Your task to perform on an android device: toggle translation in the chrome app Image 0: 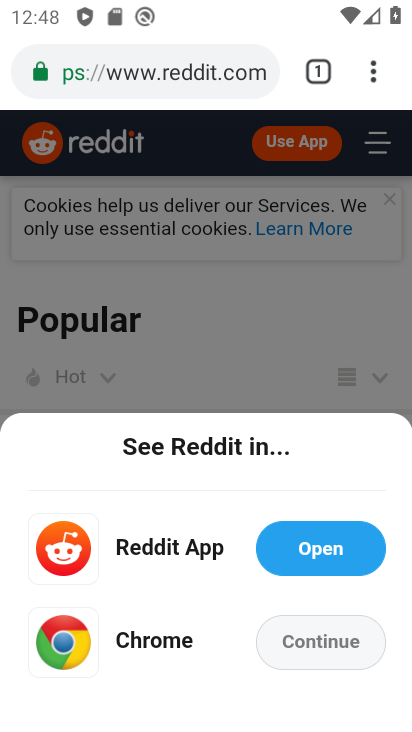
Step 0: press home button
Your task to perform on an android device: toggle translation in the chrome app Image 1: 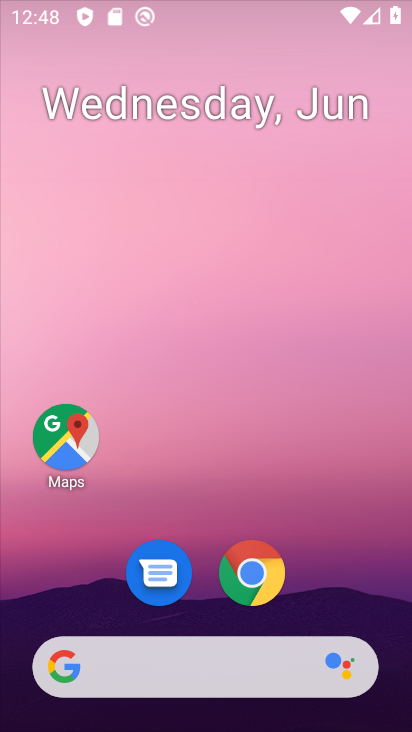
Step 1: drag from (371, 573) to (339, 255)
Your task to perform on an android device: toggle translation in the chrome app Image 2: 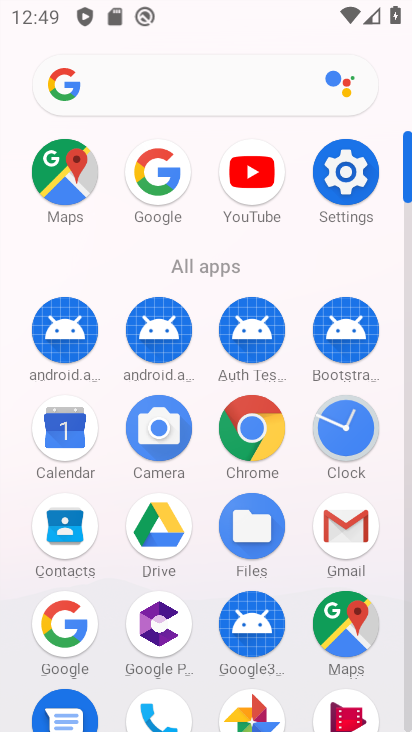
Step 2: click (270, 435)
Your task to perform on an android device: toggle translation in the chrome app Image 3: 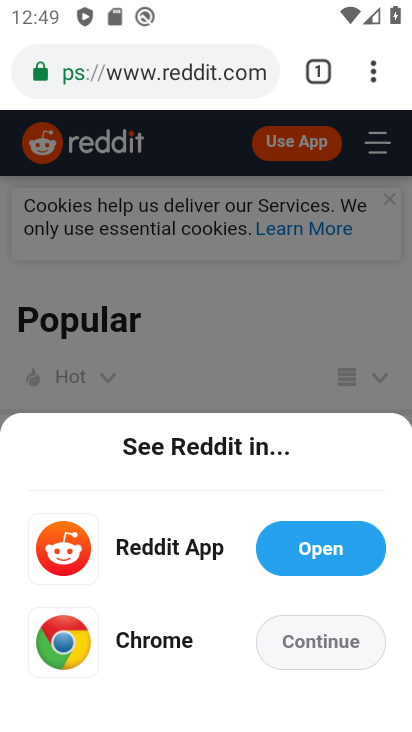
Step 3: drag from (365, 72) to (267, 592)
Your task to perform on an android device: toggle translation in the chrome app Image 4: 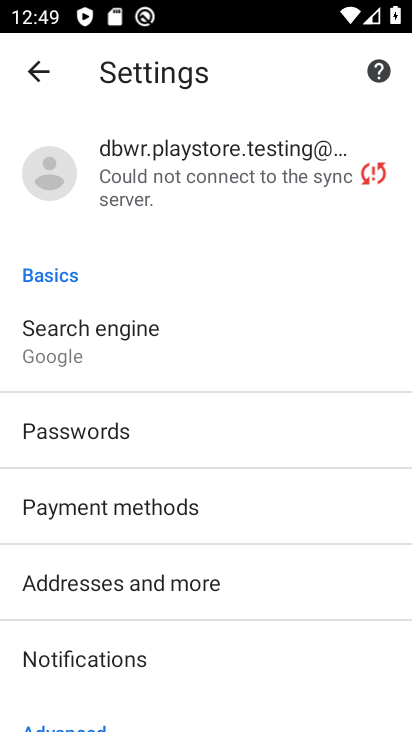
Step 4: drag from (280, 611) to (268, 440)
Your task to perform on an android device: toggle translation in the chrome app Image 5: 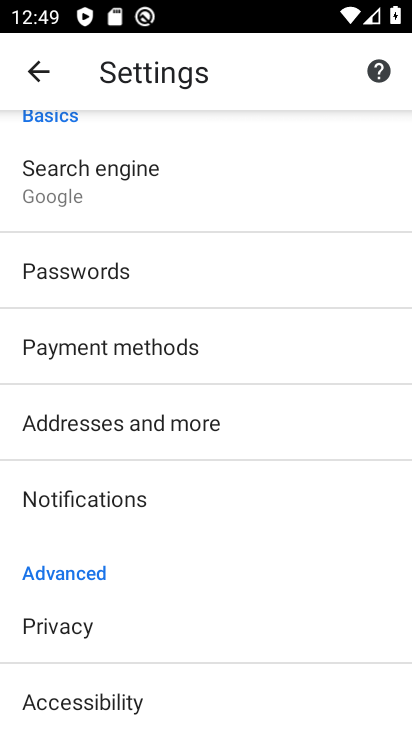
Step 5: drag from (197, 601) to (188, 297)
Your task to perform on an android device: toggle translation in the chrome app Image 6: 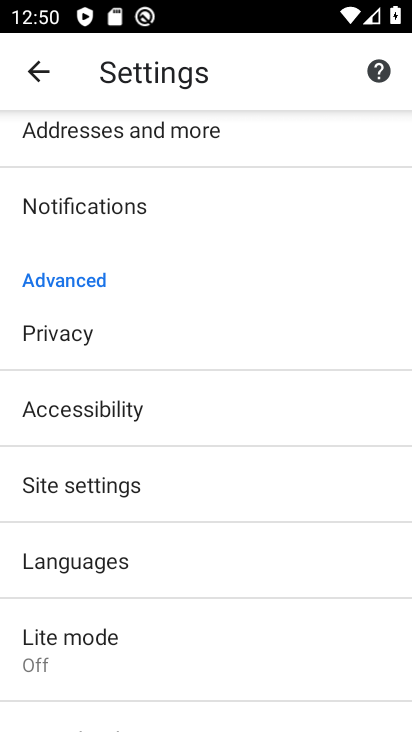
Step 6: click (200, 583)
Your task to perform on an android device: toggle translation in the chrome app Image 7: 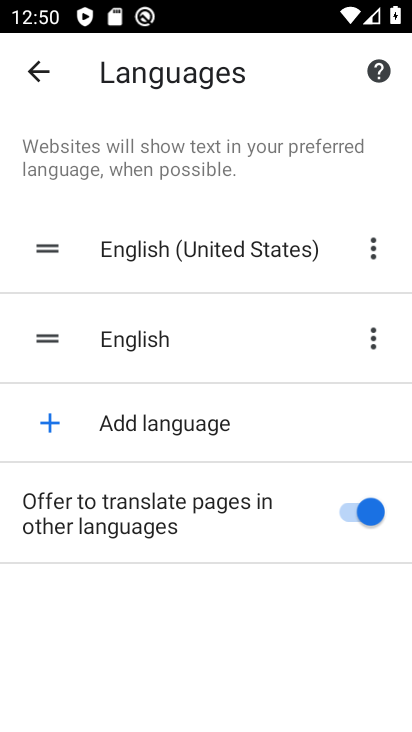
Step 7: click (338, 499)
Your task to perform on an android device: toggle translation in the chrome app Image 8: 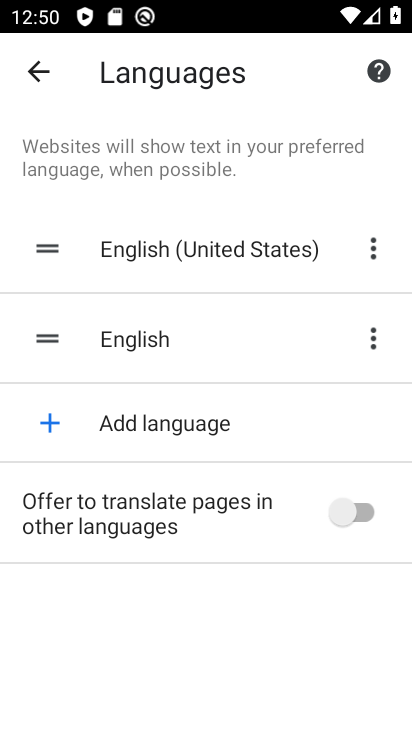
Step 8: task complete